Your task to perform on an android device: Open Wikipedia Image 0: 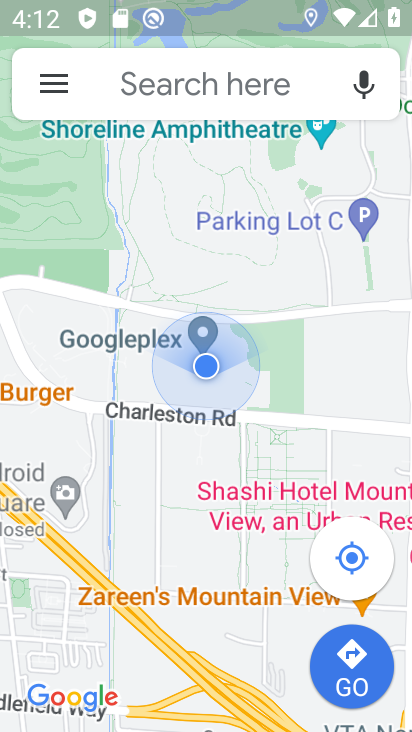
Step 0: press home button
Your task to perform on an android device: Open Wikipedia Image 1: 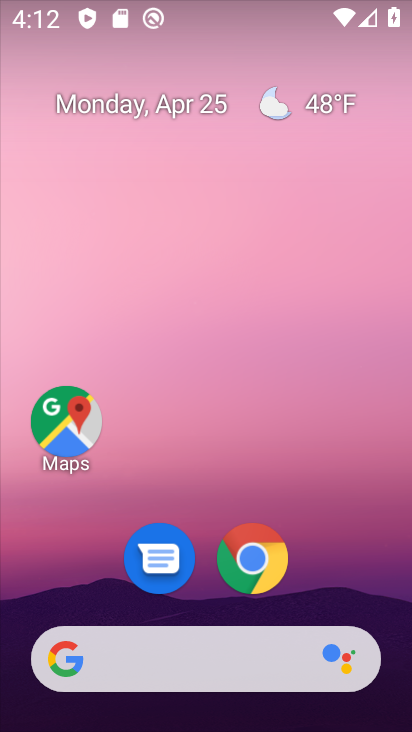
Step 1: drag from (356, 363) to (331, 62)
Your task to perform on an android device: Open Wikipedia Image 2: 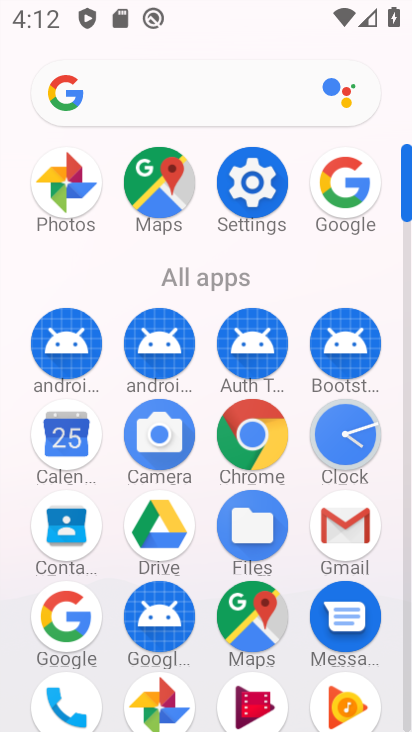
Step 2: click (269, 442)
Your task to perform on an android device: Open Wikipedia Image 3: 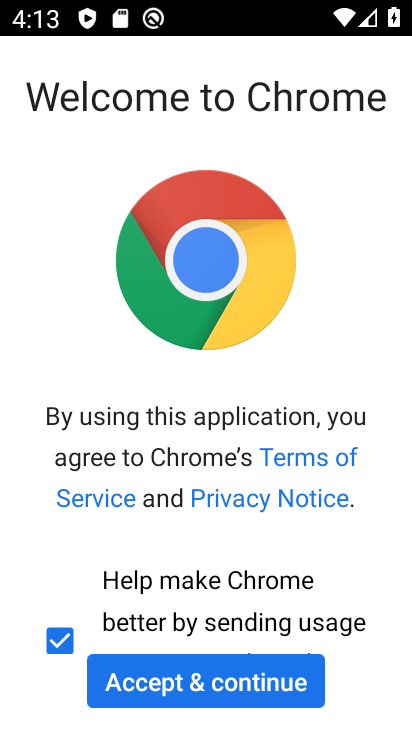
Step 3: click (206, 688)
Your task to perform on an android device: Open Wikipedia Image 4: 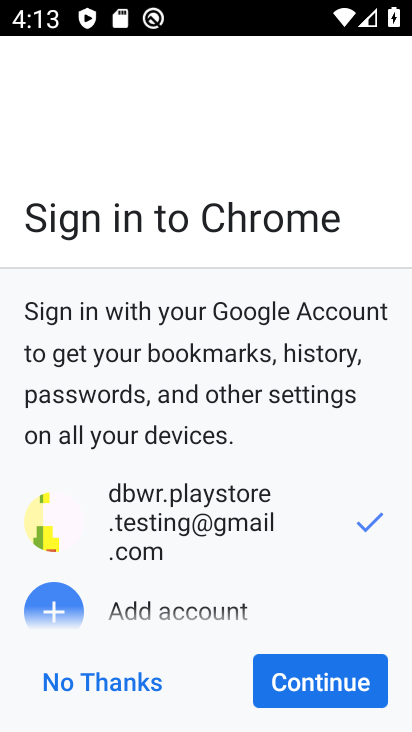
Step 4: click (115, 681)
Your task to perform on an android device: Open Wikipedia Image 5: 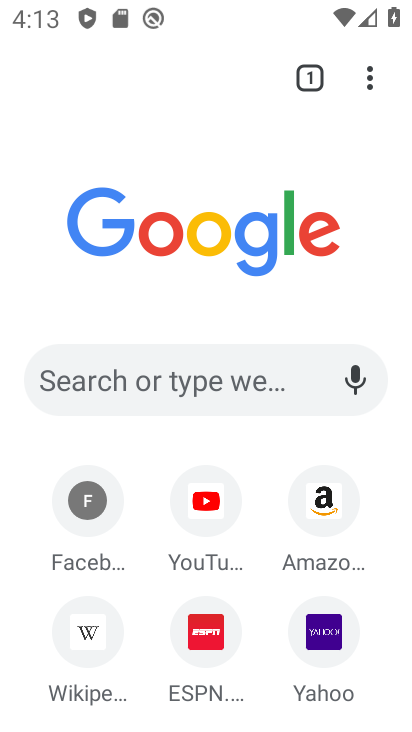
Step 5: drag from (283, 567) to (324, 125)
Your task to perform on an android device: Open Wikipedia Image 6: 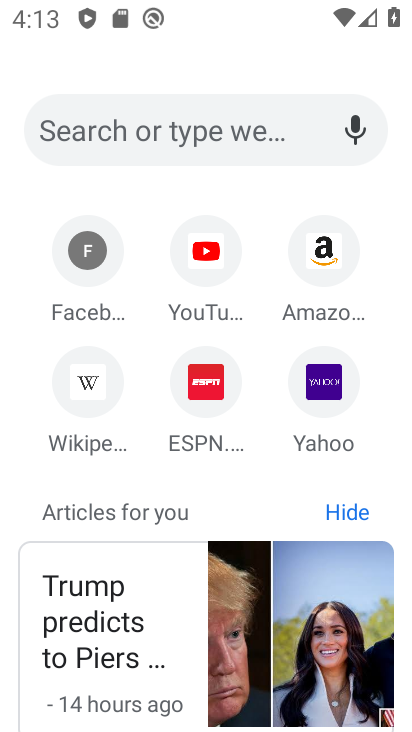
Step 6: click (95, 403)
Your task to perform on an android device: Open Wikipedia Image 7: 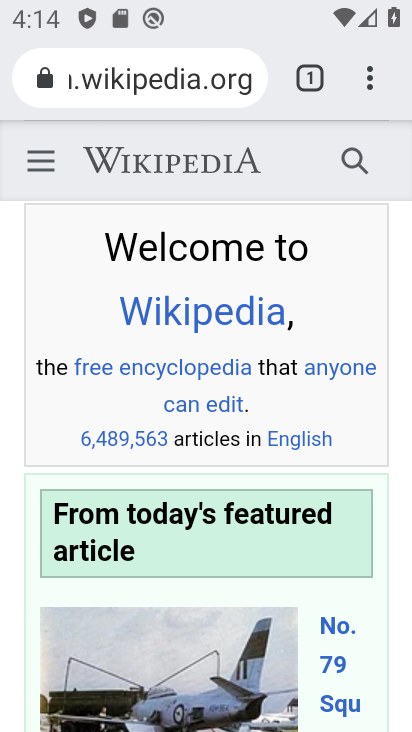
Step 7: task complete